Your task to perform on an android device: Go to Maps Image 0: 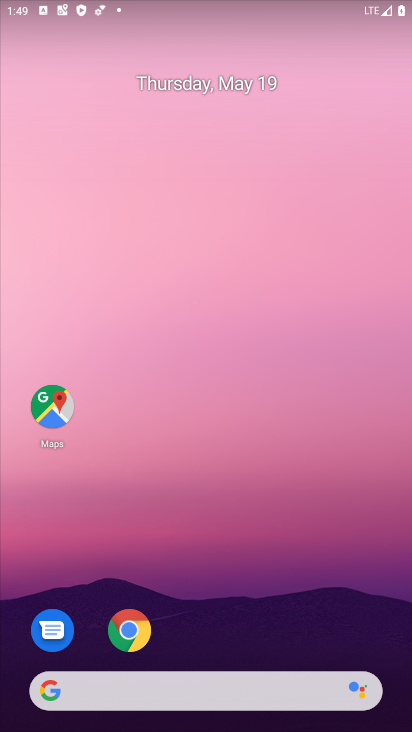
Step 0: click (53, 406)
Your task to perform on an android device: Go to Maps Image 1: 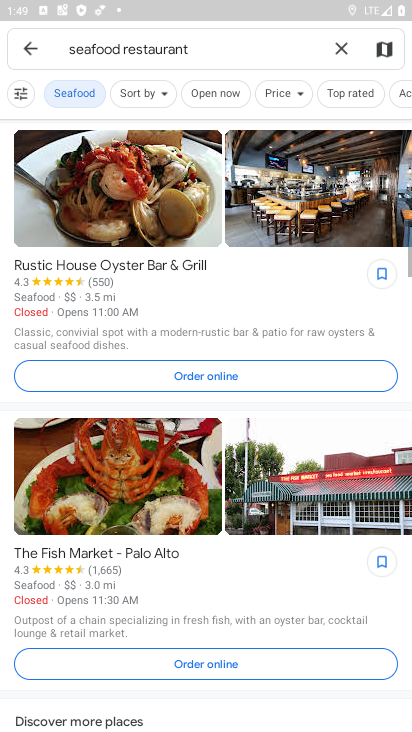
Step 1: click (340, 48)
Your task to perform on an android device: Go to Maps Image 2: 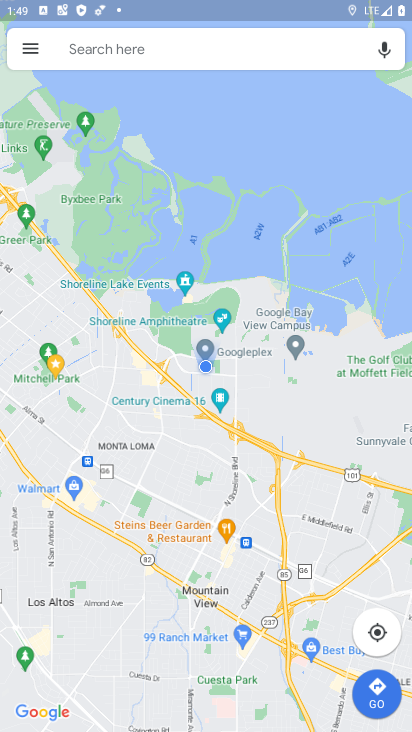
Step 2: task complete